Your task to perform on an android device: manage bookmarks in the chrome app Image 0: 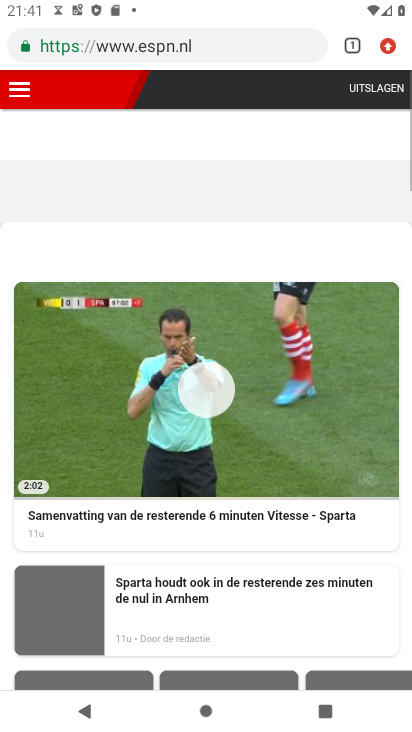
Step 0: press home button
Your task to perform on an android device: manage bookmarks in the chrome app Image 1: 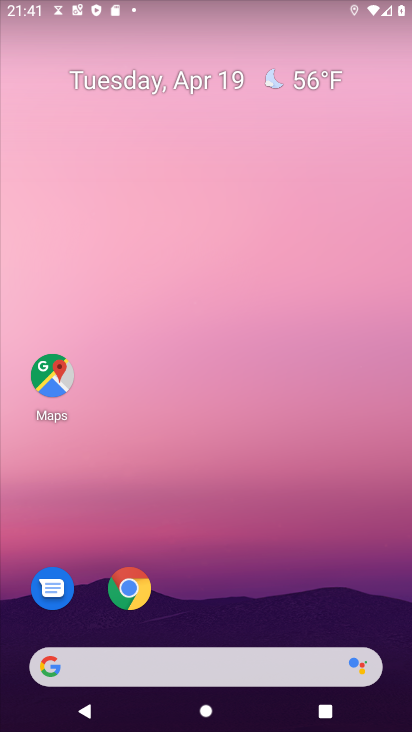
Step 1: click (129, 592)
Your task to perform on an android device: manage bookmarks in the chrome app Image 2: 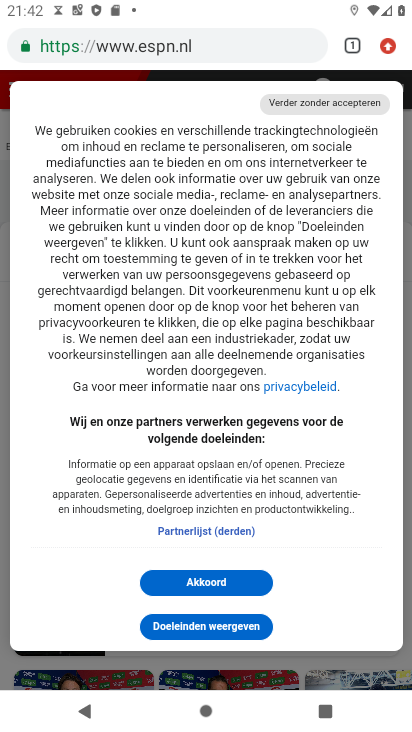
Step 2: click (392, 49)
Your task to perform on an android device: manage bookmarks in the chrome app Image 3: 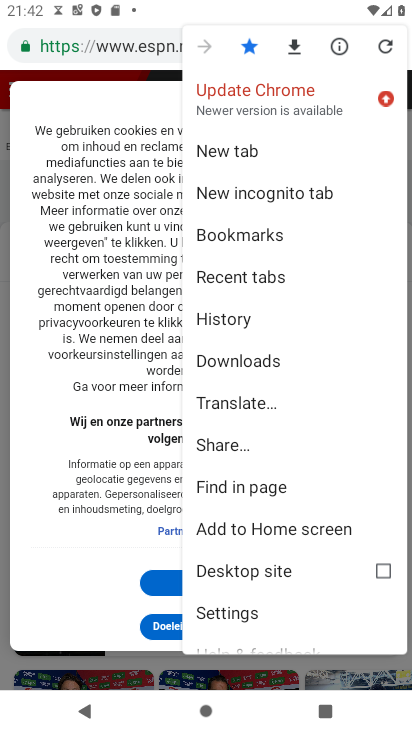
Step 3: click (261, 240)
Your task to perform on an android device: manage bookmarks in the chrome app Image 4: 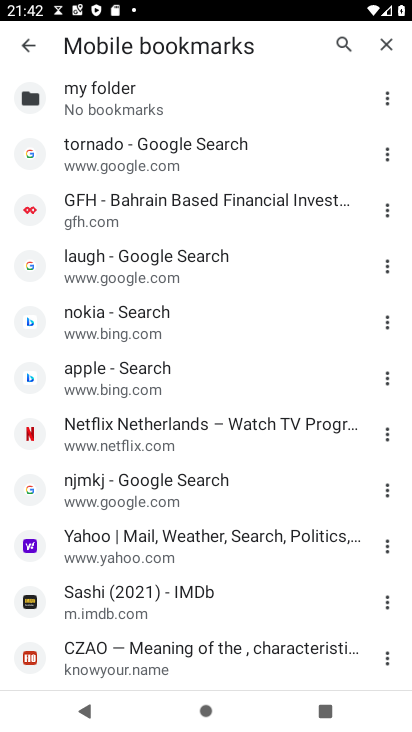
Step 4: click (389, 211)
Your task to perform on an android device: manage bookmarks in the chrome app Image 5: 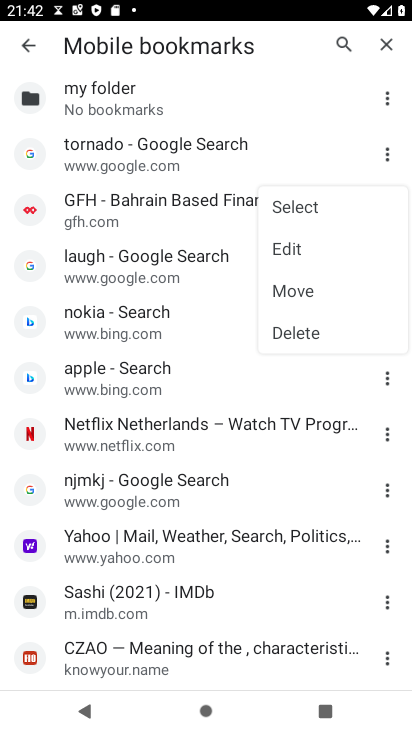
Step 5: click (296, 255)
Your task to perform on an android device: manage bookmarks in the chrome app Image 6: 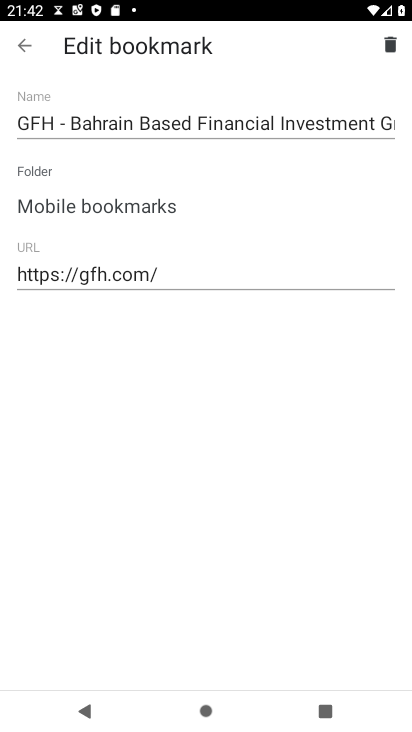
Step 6: click (392, 53)
Your task to perform on an android device: manage bookmarks in the chrome app Image 7: 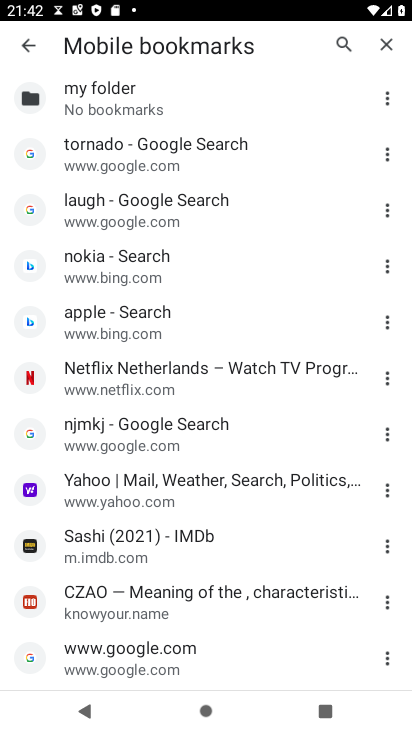
Step 7: task complete